Your task to perform on an android device: turn off location history Image 0: 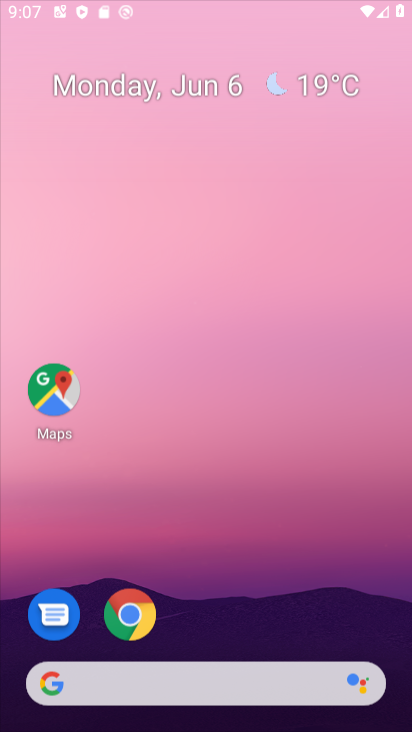
Step 0: click (62, 388)
Your task to perform on an android device: turn off location history Image 1: 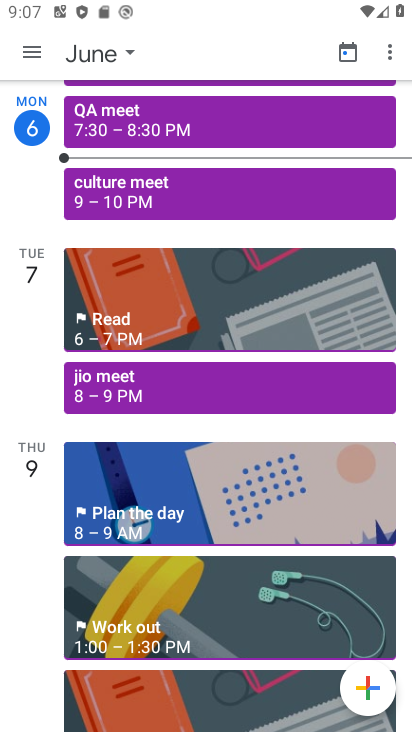
Step 1: press home button
Your task to perform on an android device: turn off location history Image 2: 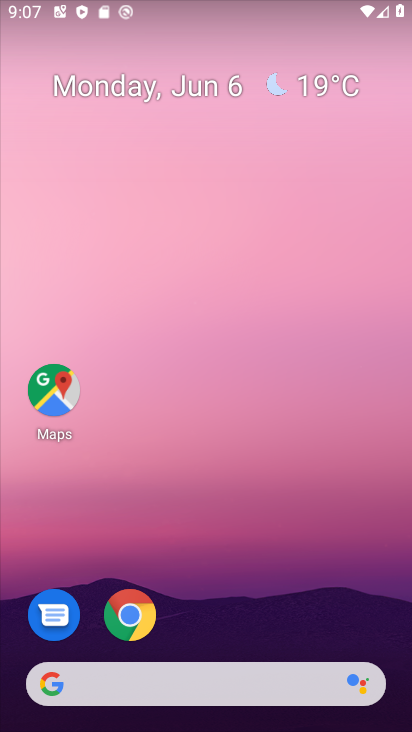
Step 2: drag from (188, 651) to (368, 2)
Your task to perform on an android device: turn off location history Image 3: 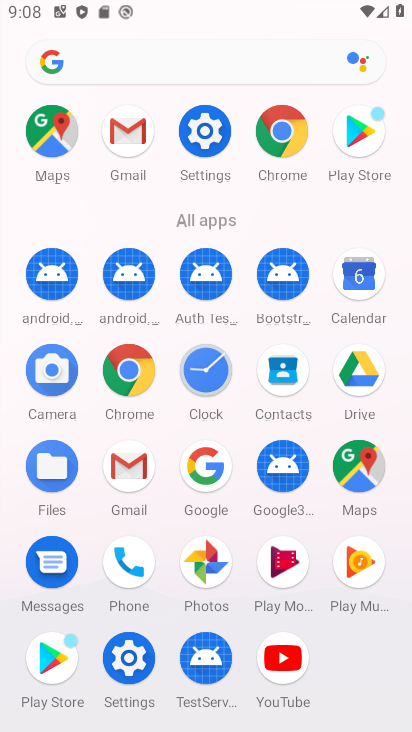
Step 3: click (180, 121)
Your task to perform on an android device: turn off location history Image 4: 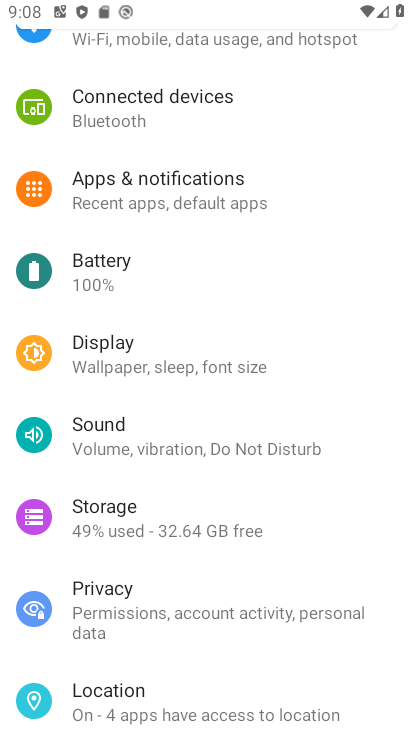
Step 4: click (79, 707)
Your task to perform on an android device: turn off location history Image 5: 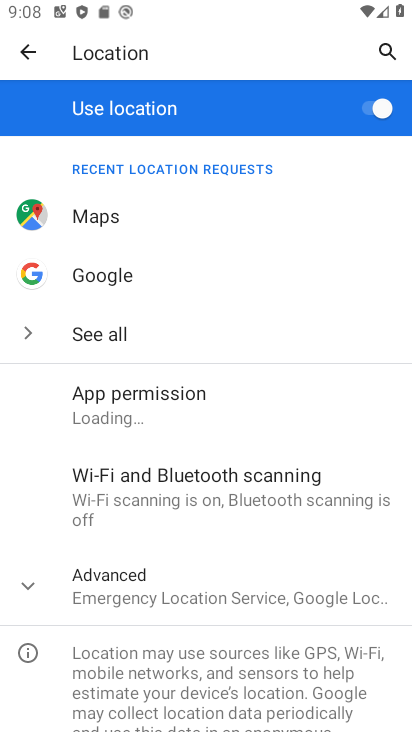
Step 5: click (45, 610)
Your task to perform on an android device: turn off location history Image 6: 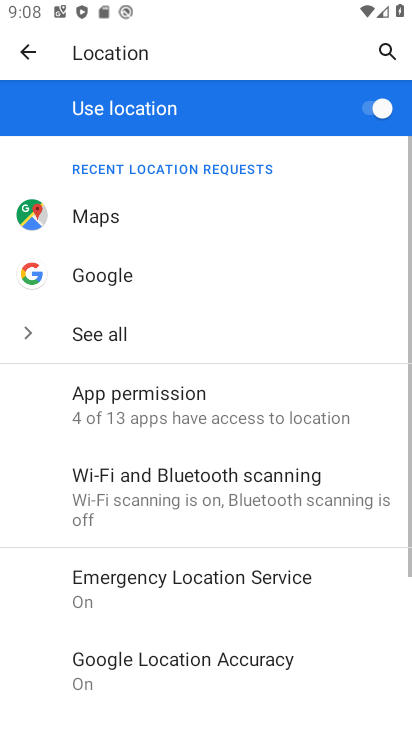
Step 6: drag from (170, 631) to (71, 96)
Your task to perform on an android device: turn off location history Image 7: 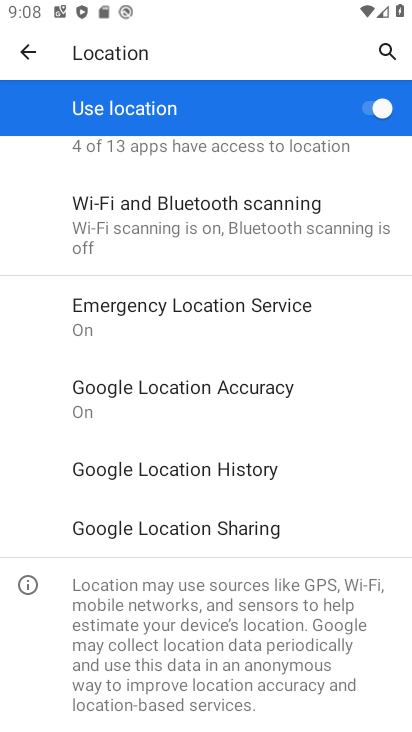
Step 7: click (138, 464)
Your task to perform on an android device: turn off location history Image 8: 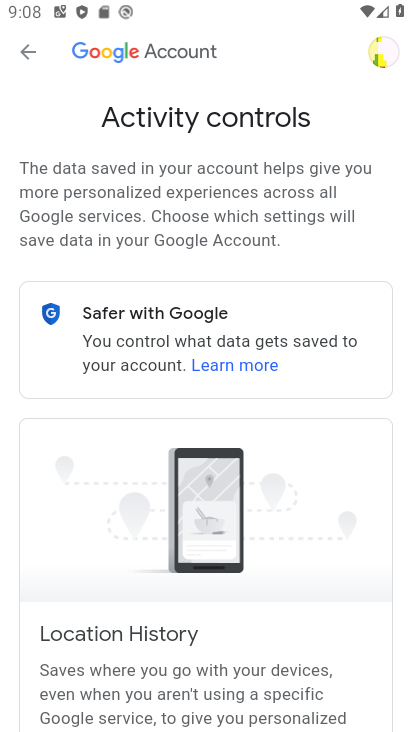
Step 8: task complete